Your task to perform on an android device: uninstall "Speedtest by Ookla" Image 0: 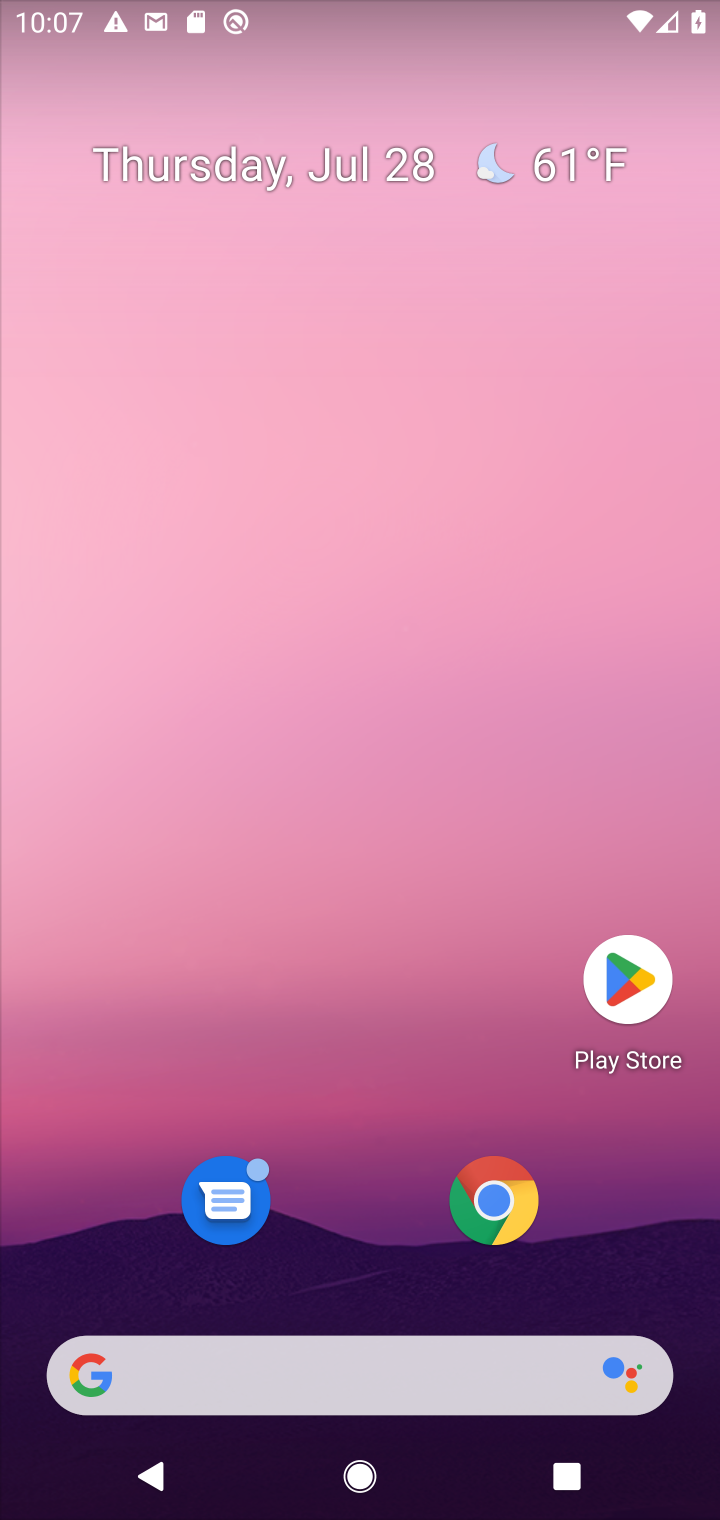
Step 0: click (628, 986)
Your task to perform on an android device: uninstall "Speedtest by Ookla" Image 1: 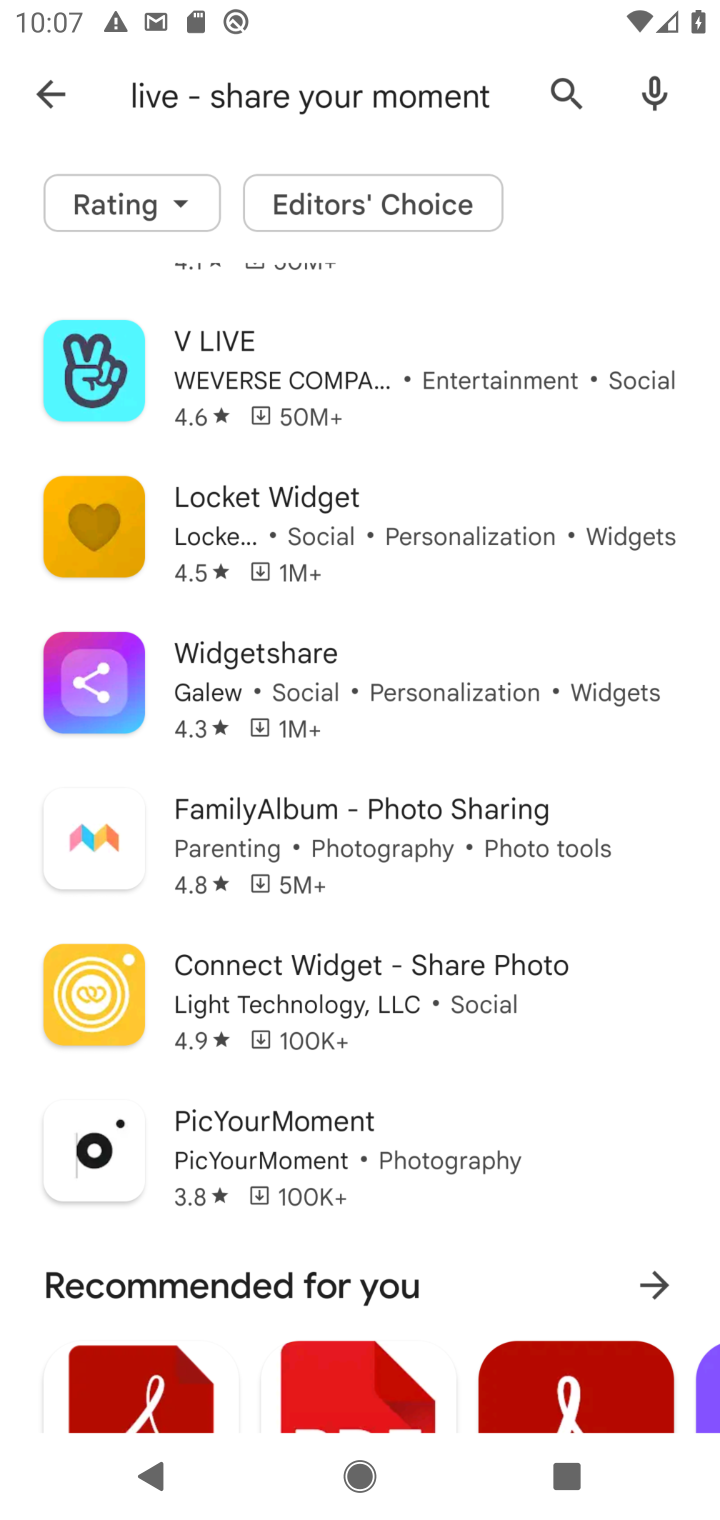
Step 1: click (628, 990)
Your task to perform on an android device: uninstall "Speedtest by Ookla" Image 2: 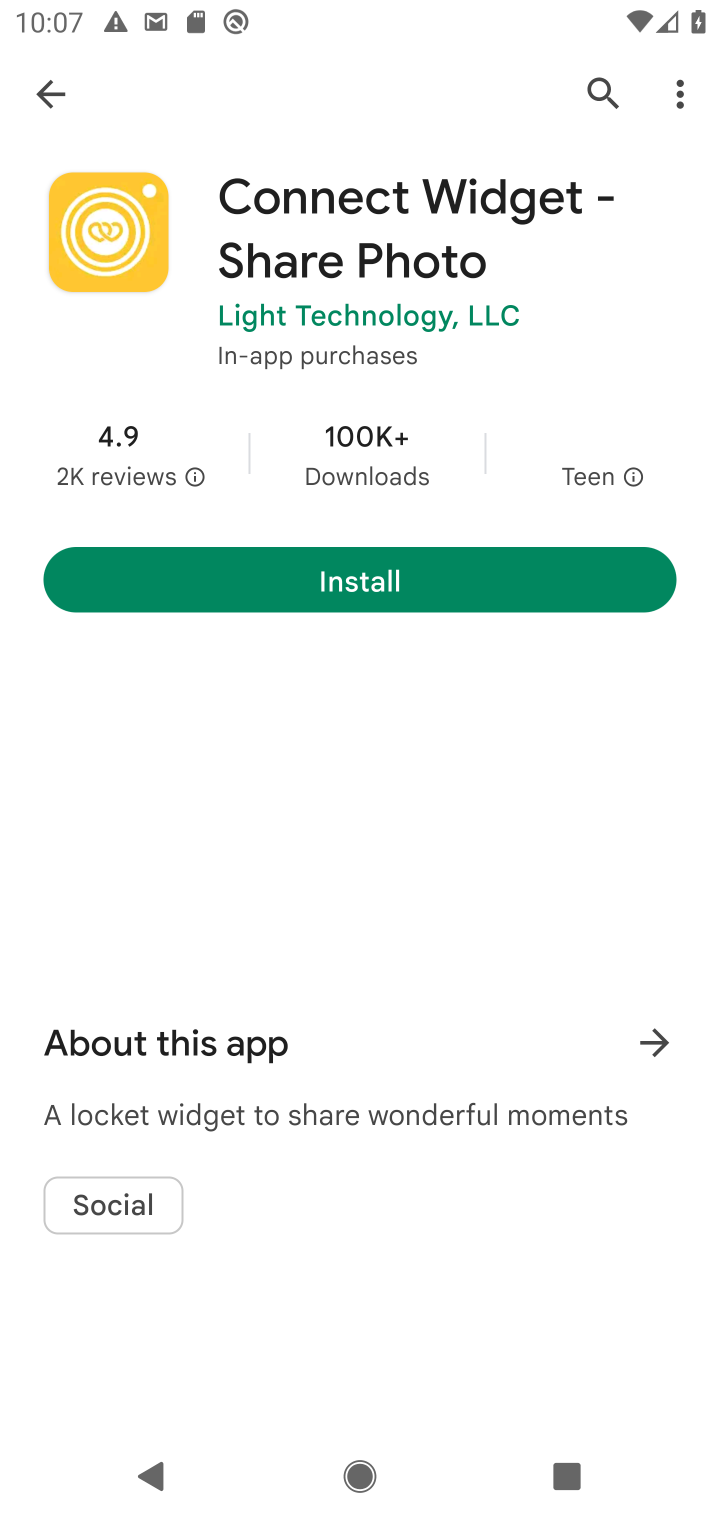
Step 2: click (564, 84)
Your task to perform on an android device: uninstall "Speedtest by Ookla" Image 3: 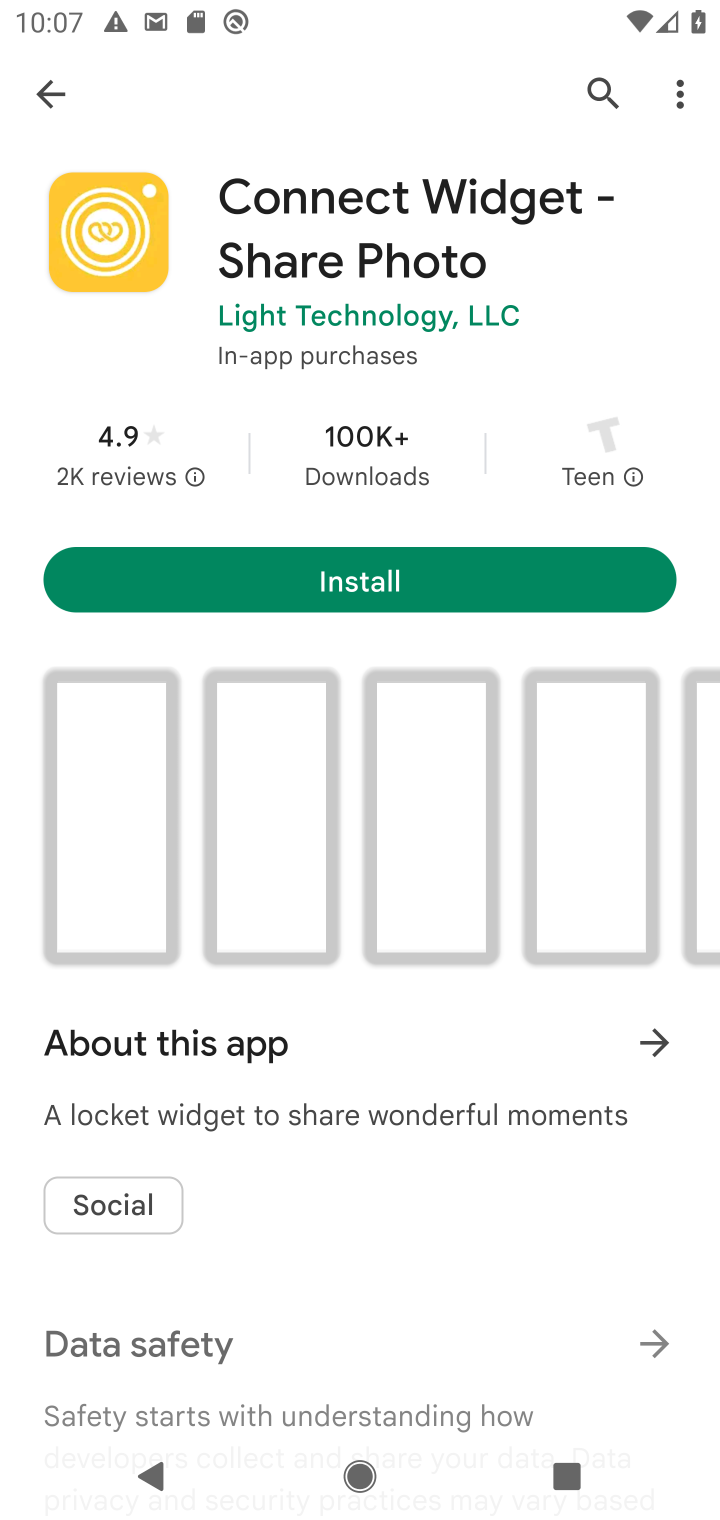
Step 3: click (597, 77)
Your task to perform on an android device: uninstall "Speedtest by Ookla" Image 4: 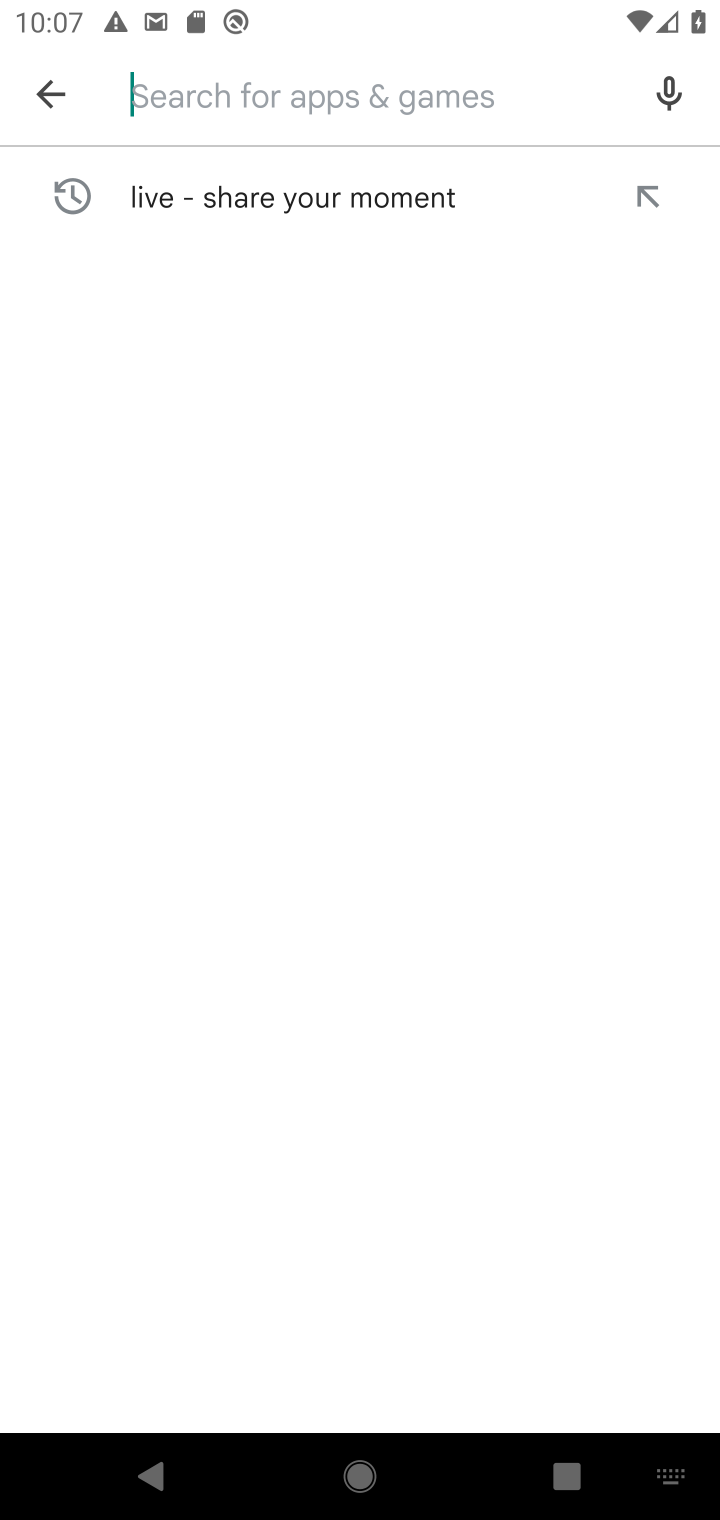
Step 4: click (269, 91)
Your task to perform on an android device: uninstall "Speedtest by Ookla" Image 5: 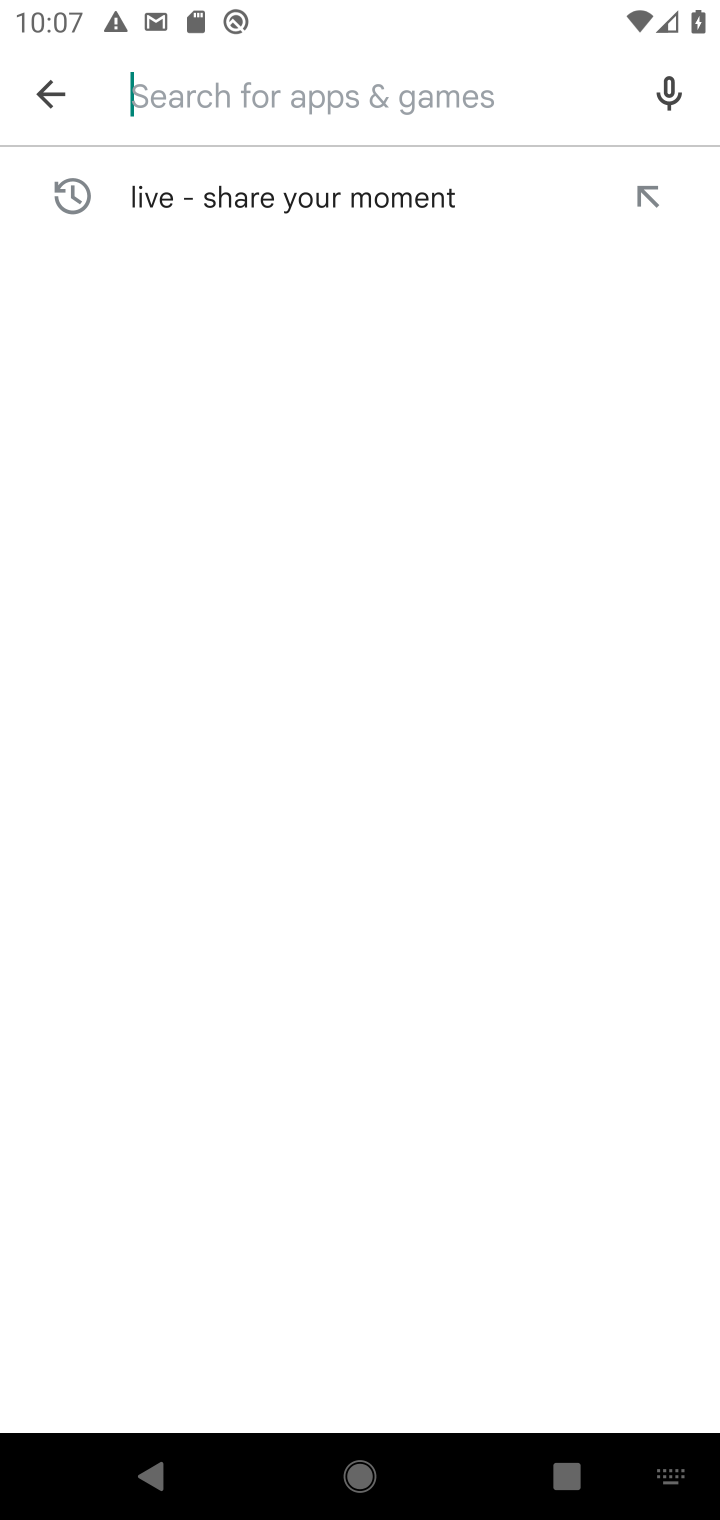
Step 5: type "Speedtest by Ookla"
Your task to perform on an android device: uninstall "Speedtest by Ookla" Image 6: 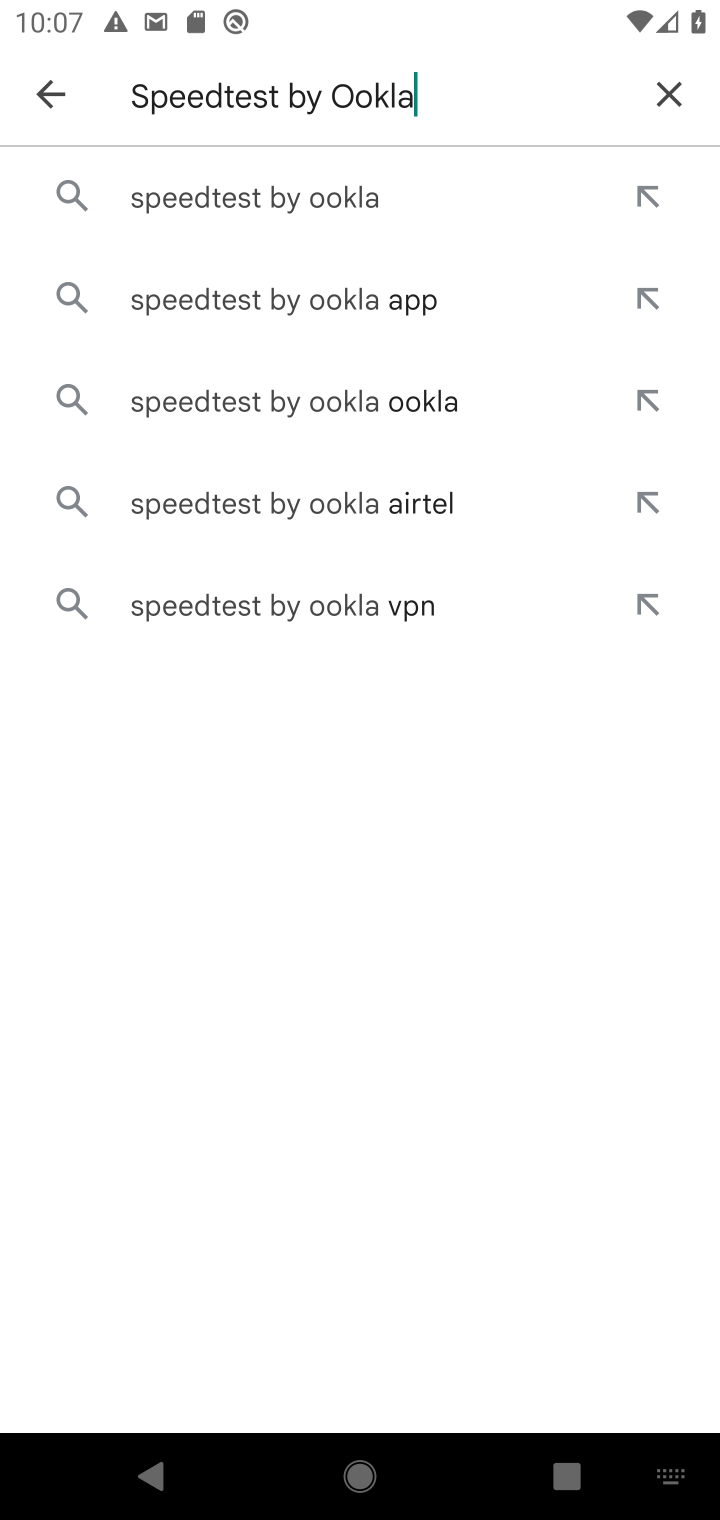
Step 6: click (340, 206)
Your task to perform on an android device: uninstall "Speedtest by Ookla" Image 7: 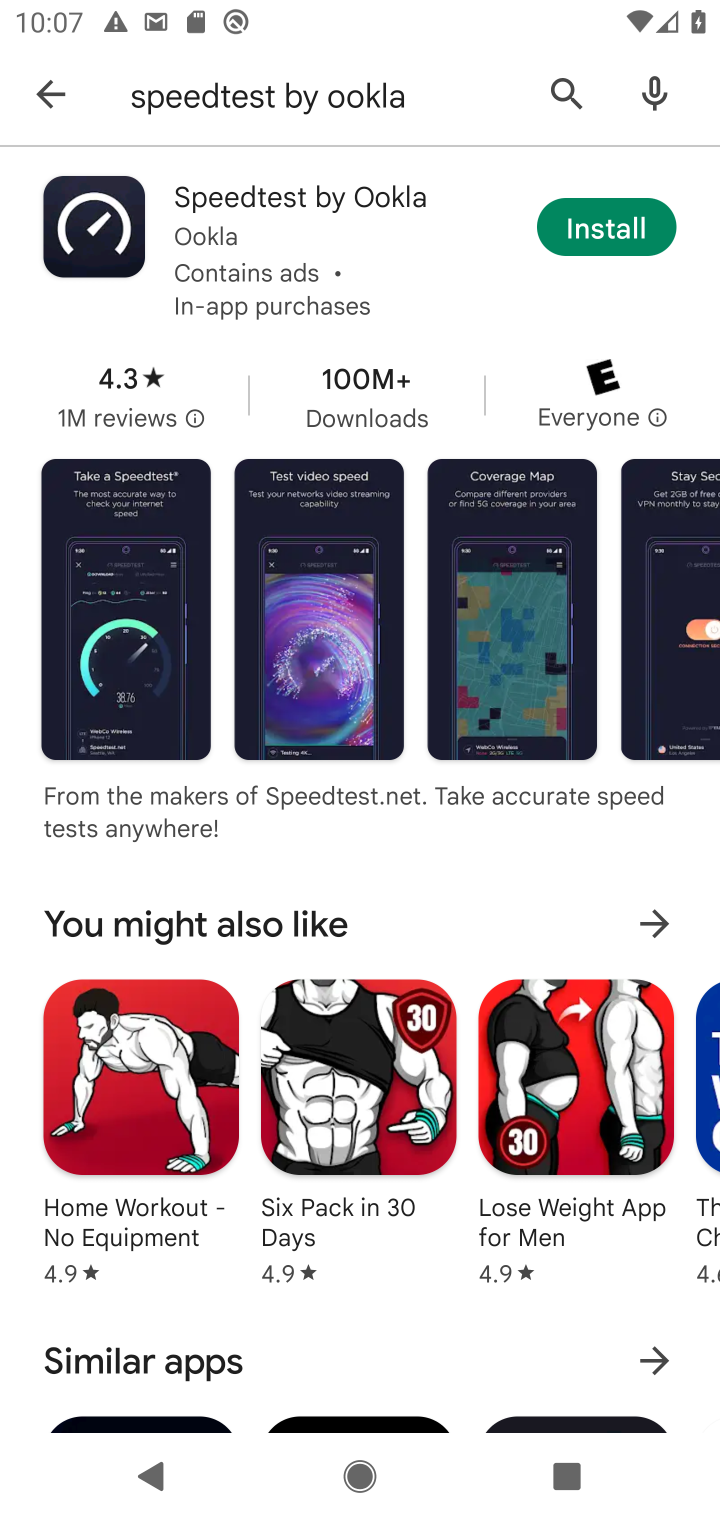
Step 7: task complete